Your task to perform on an android device: Open Youtube and go to the subscriptions tab Image 0: 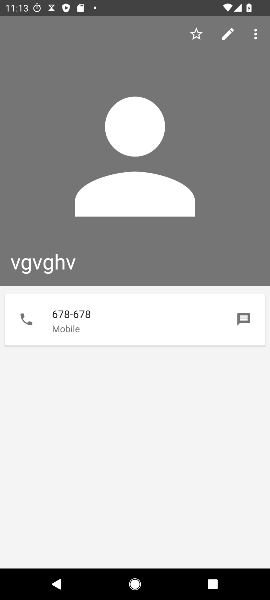
Step 0: press home button
Your task to perform on an android device: Open Youtube and go to the subscriptions tab Image 1: 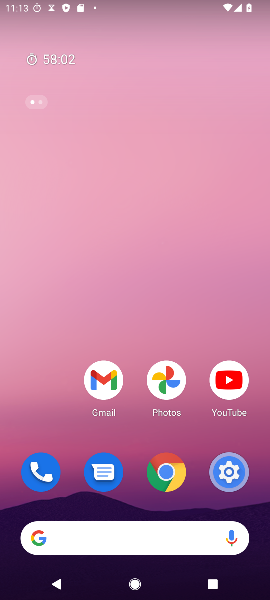
Step 1: click (229, 392)
Your task to perform on an android device: Open Youtube and go to the subscriptions tab Image 2: 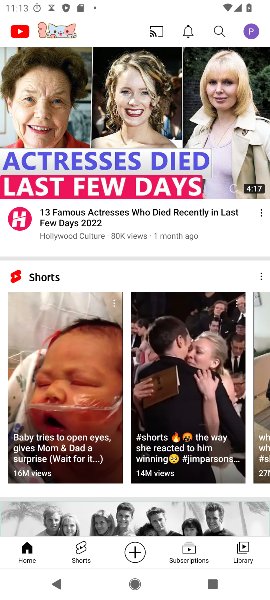
Step 2: click (196, 550)
Your task to perform on an android device: Open Youtube and go to the subscriptions tab Image 3: 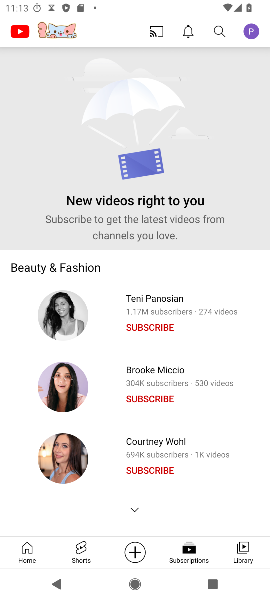
Step 3: task complete